Your task to perform on an android device: make emails show in primary in the gmail app Image 0: 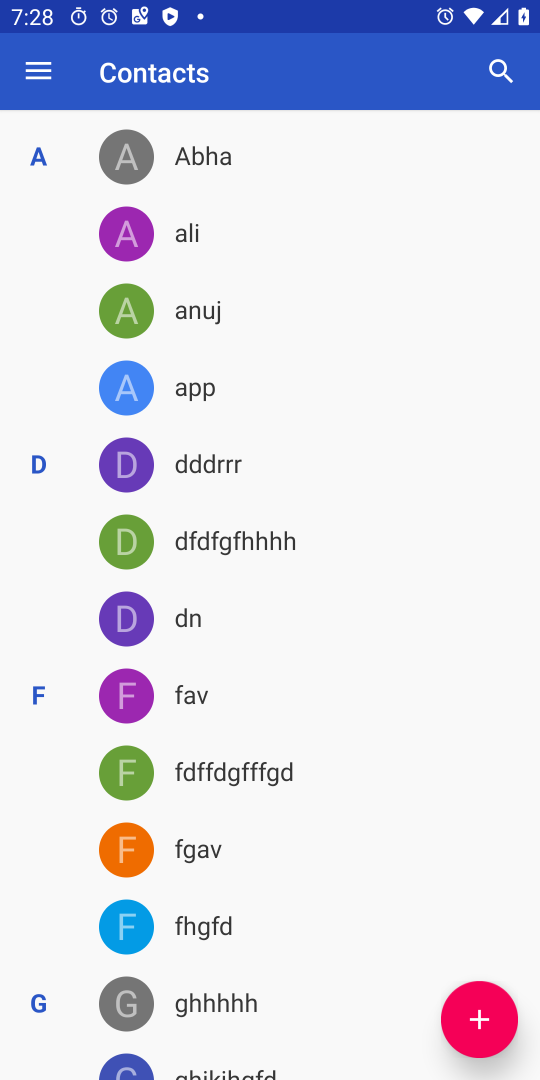
Step 0: task impossible